Your task to perform on an android device: Search for the best burger restaurants on Maps Image 0: 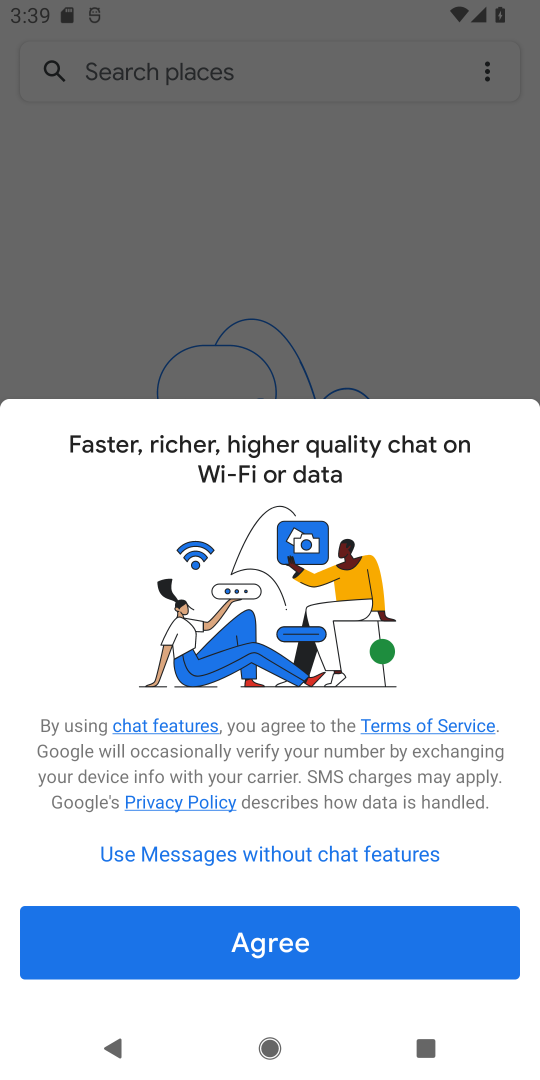
Step 0: press home button
Your task to perform on an android device: Search for the best burger restaurants on Maps Image 1: 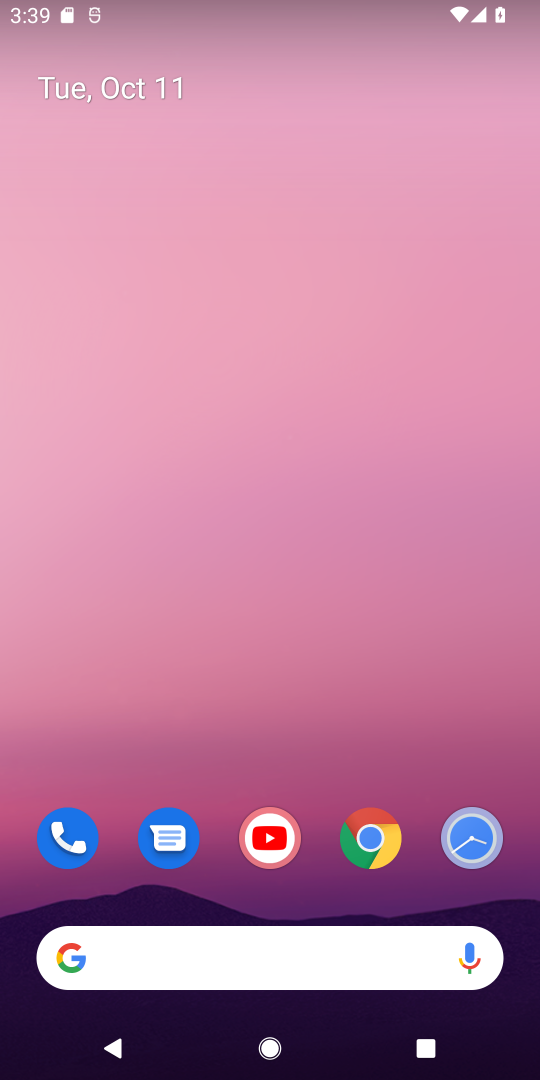
Step 1: click (246, 978)
Your task to perform on an android device: Search for the best burger restaurants on Maps Image 2: 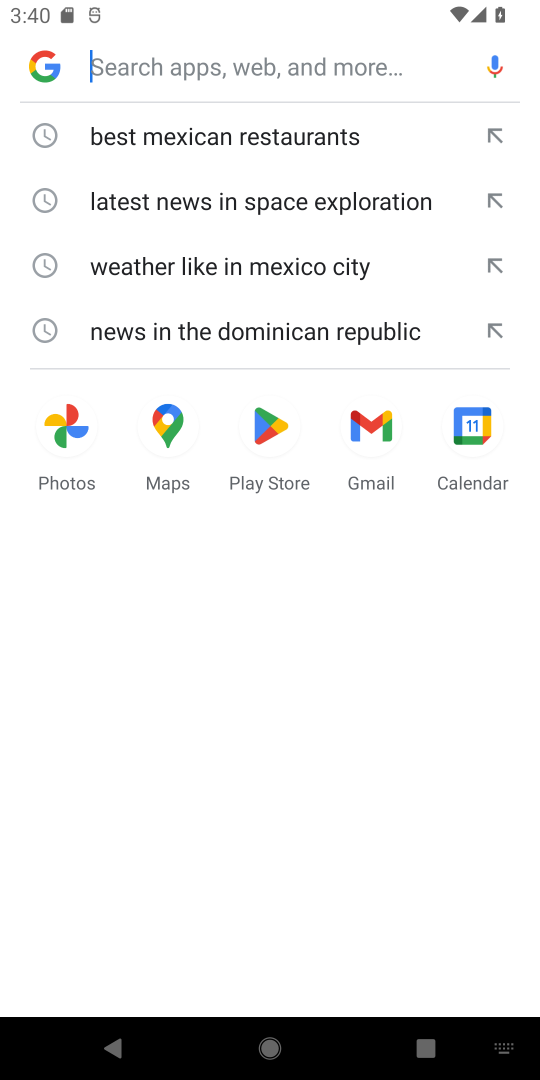
Step 2: type "best burger restaurants"
Your task to perform on an android device: Search for the best burger restaurants on Maps Image 3: 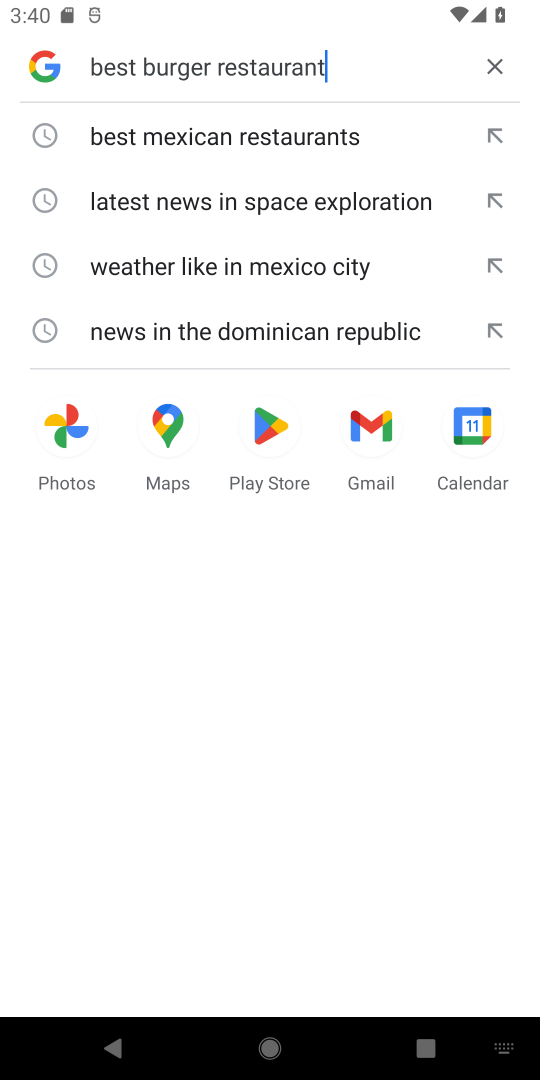
Step 3: type ""
Your task to perform on an android device: Search for the best burger restaurants on Maps Image 4: 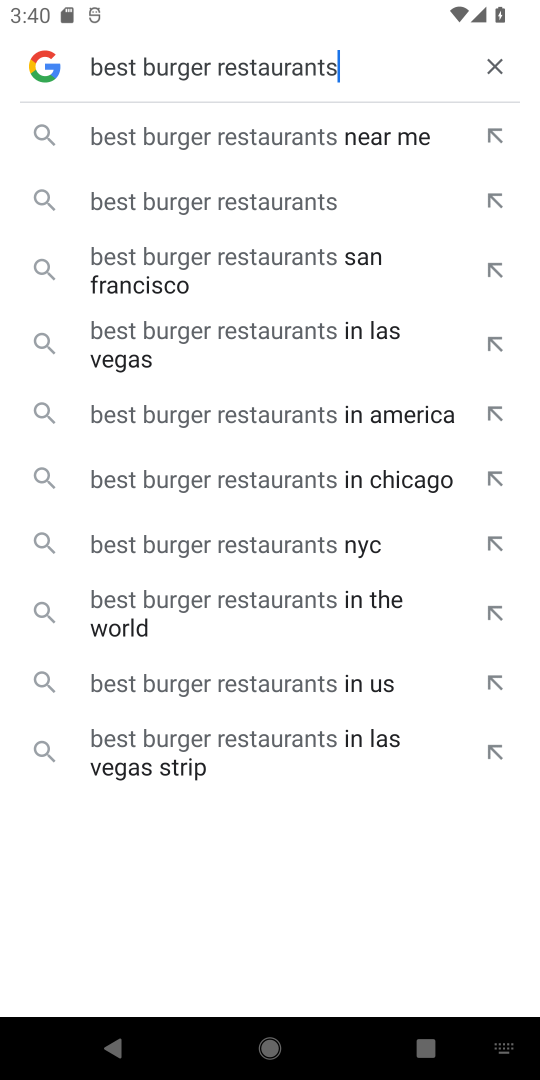
Step 4: click (322, 142)
Your task to perform on an android device: Search for the best burger restaurants on Maps Image 5: 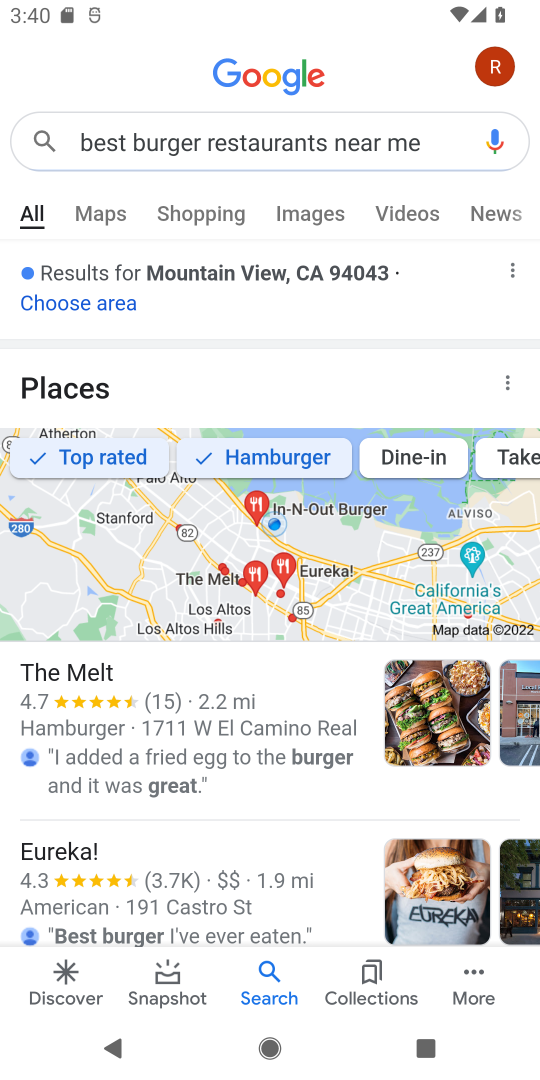
Step 5: click (289, 565)
Your task to perform on an android device: Search for the best burger restaurants on Maps Image 6: 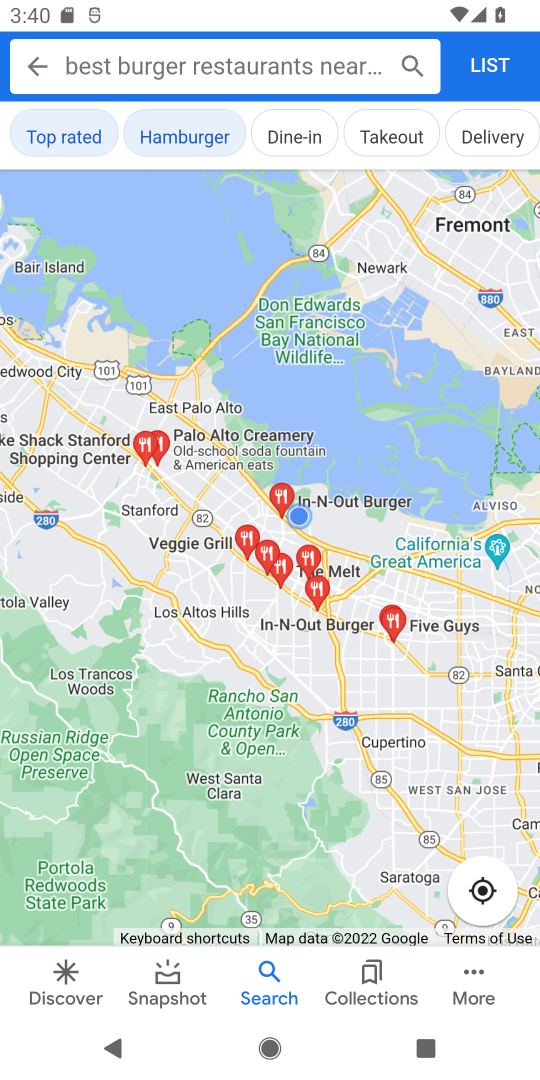
Step 6: task complete